Your task to perform on an android device: turn on the 12-hour format for clock Image 0: 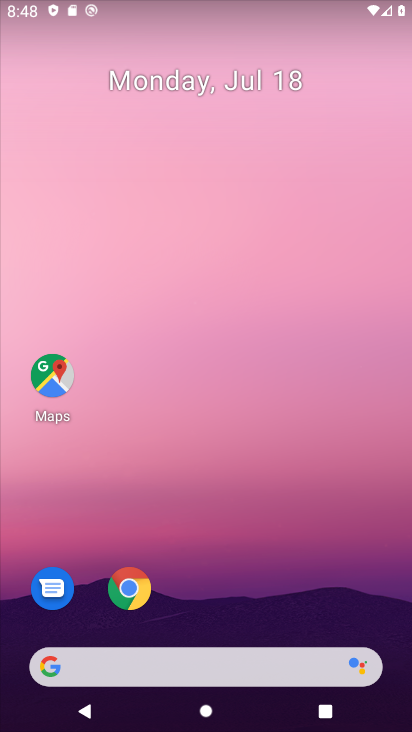
Step 0: press home button
Your task to perform on an android device: turn on the 12-hour format for clock Image 1: 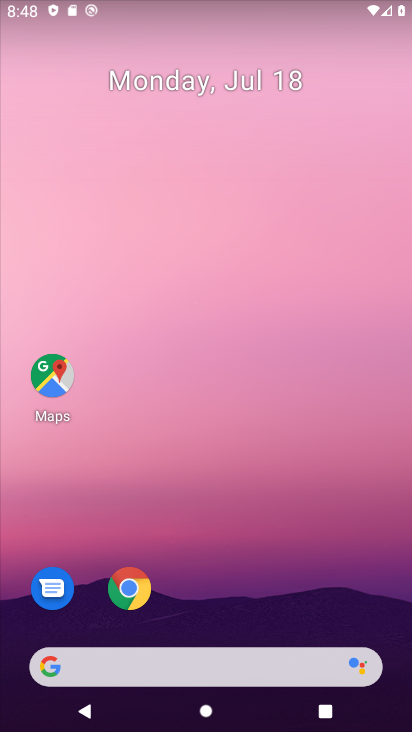
Step 1: drag from (218, 624) to (231, 33)
Your task to perform on an android device: turn on the 12-hour format for clock Image 2: 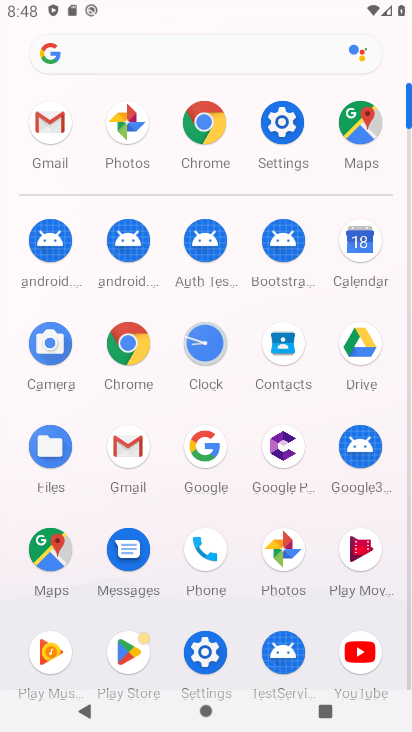
Step 2: click (200, 648)
Your task to perform on an android device: turn on the 12-hour format for clock Image 3: 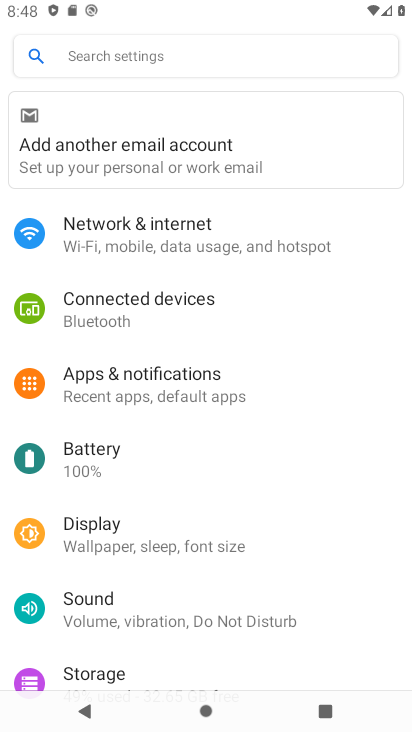
Step 3: drag from (129, 514) to (126, 16)
Your task to perform on an android device: turn on the 12-hour format for clock Image 4: 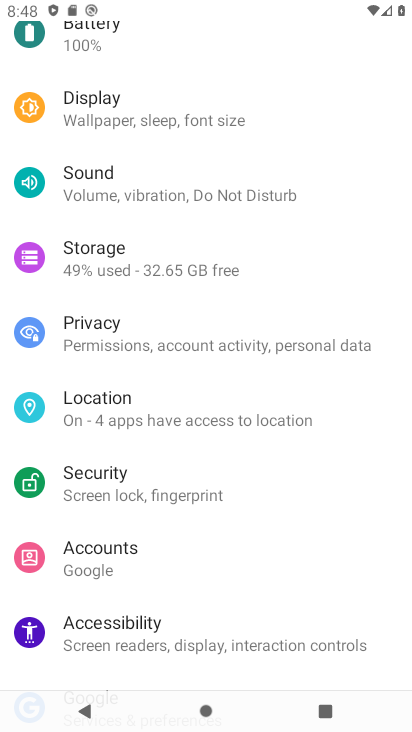
Step 4: press home button
Your task to perform on an android device: turn on the 12-hour format for clock Image 5: 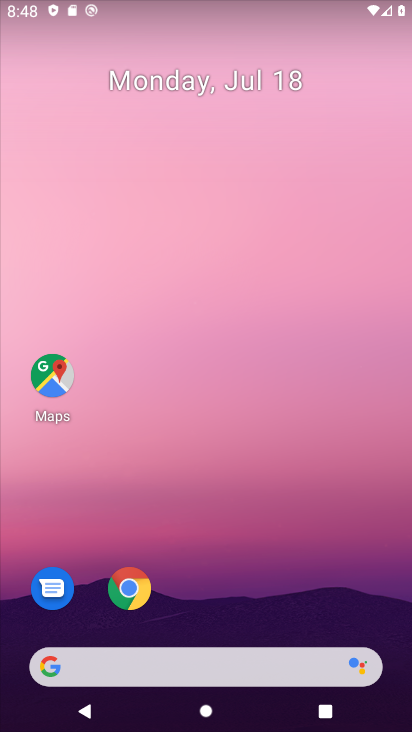
Step 5: drag from (232, 601) to (209, 170)
Your task to perform on an android device: turn on the 12-hour format for clock Image 6: 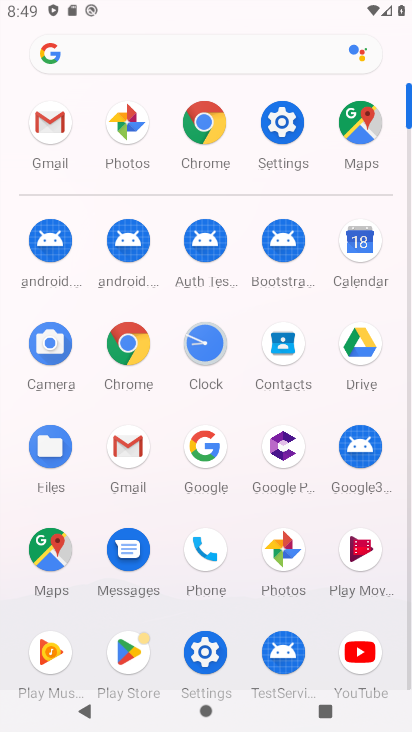
Step 6: click (206, 353)
Your task to perform on an android device: turn on the 12-hour format for clock Image 7: 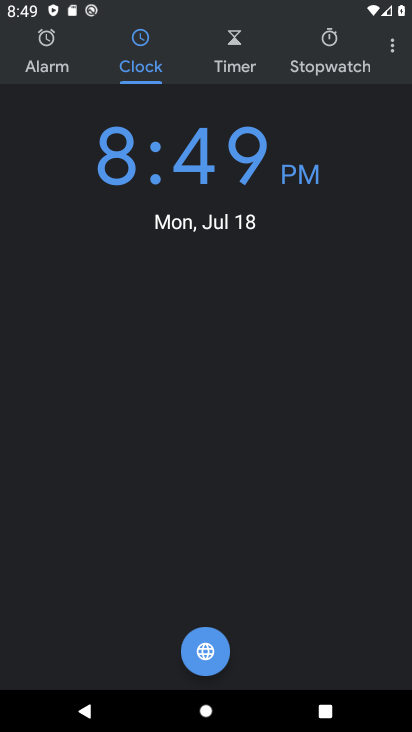
Step 7: click (381, 45)
Your task to perform on an android device: turn on the 12-hour format for clock Image 8: 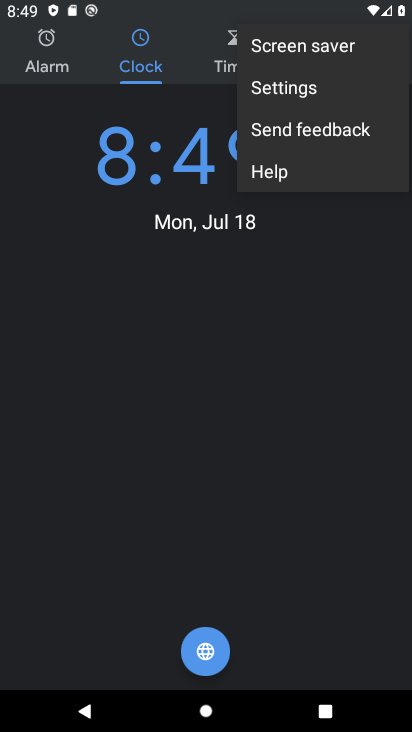
Step 8: click (311, 84)
Your task to perform on an android device: turn on the 12-hour format for clock Image 9: 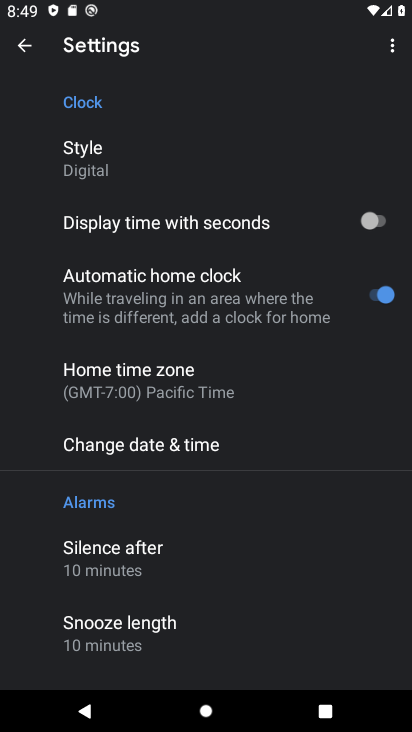
Step 9: click (94, 459)
Your task to perform on an android device: turn on the 12-hour format for clock Image 10: 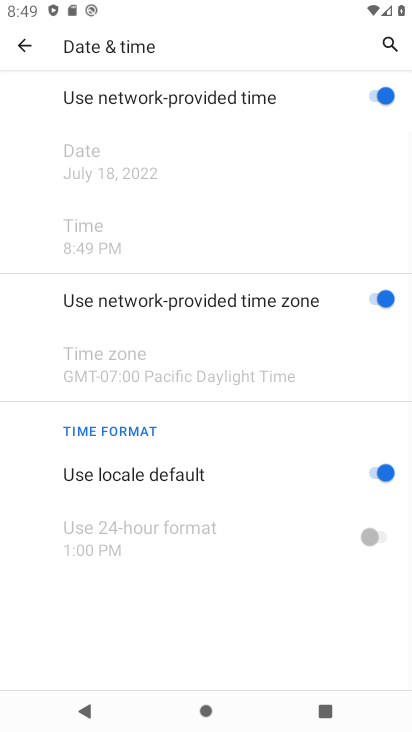
Step 10: click (112, 494)
Your task to perform on an android device: turn on the 12-hour format for clock Image 11: 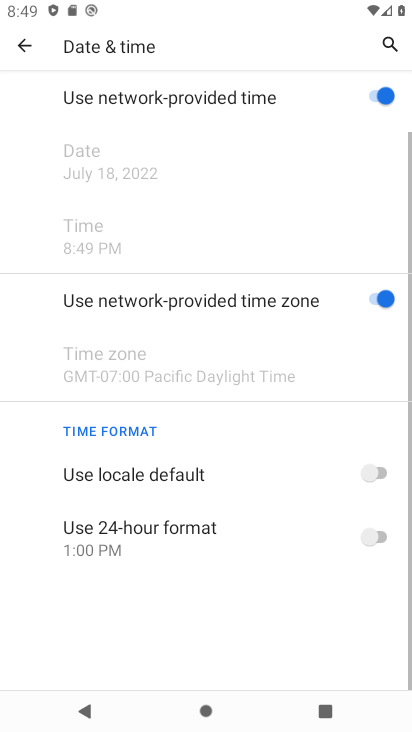
Step 11: click (134, 530)
Your task to perform on an android device: turn on the 12-hour format for clock Image 12: 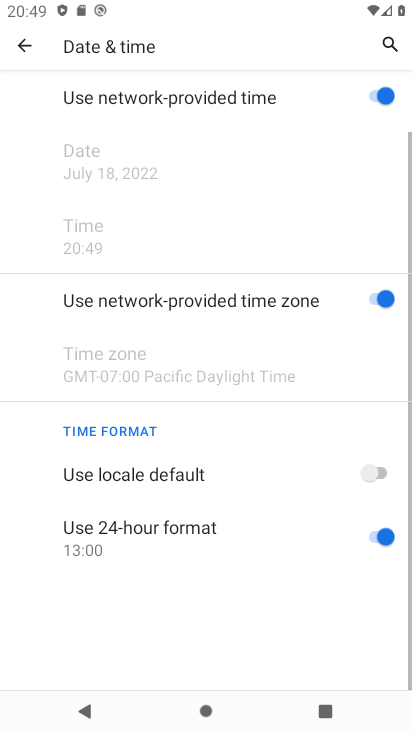
Step 12: task complete